Your task to perform on an android device: turn on data saver in the chrome app Image 0: 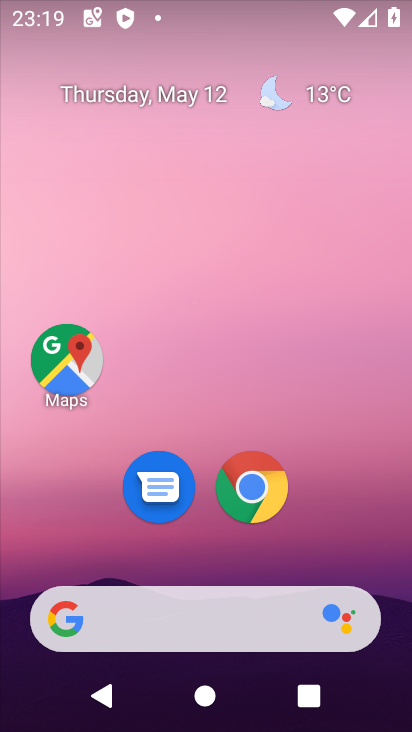
Step 0: click (243, 490)
Your task to perform on an android device: turn on data saver in the chrome app Image 1: 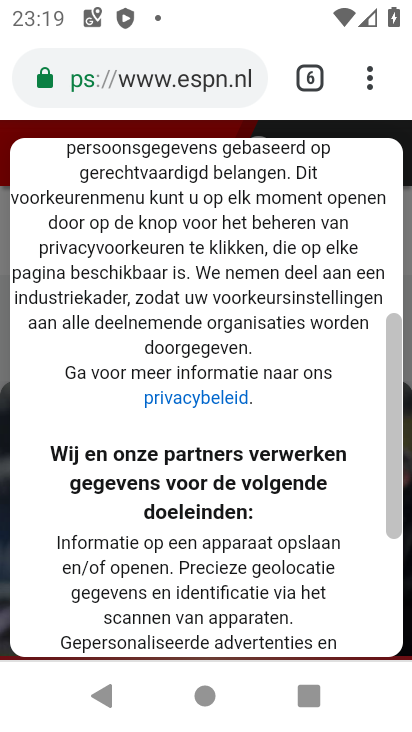
Step 1: click (376, 78)
Your task to perform on an android device: turn on data saver in the chrome app Image 2: 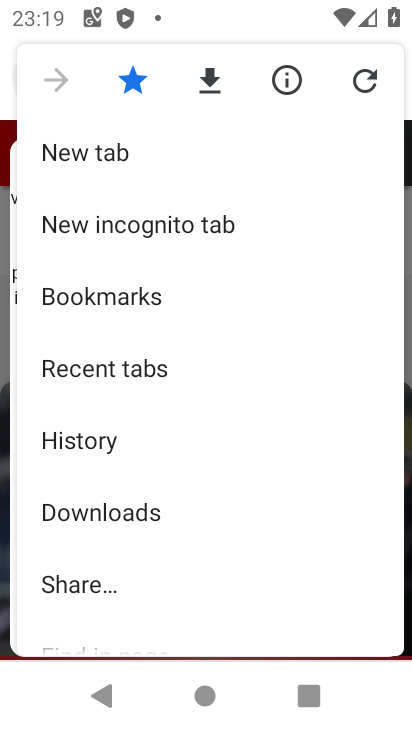
Step 2: drag from (134, 584) to (156, 138)
Your task to perform on an android device: turn on data saver in the chrome app Image 3: 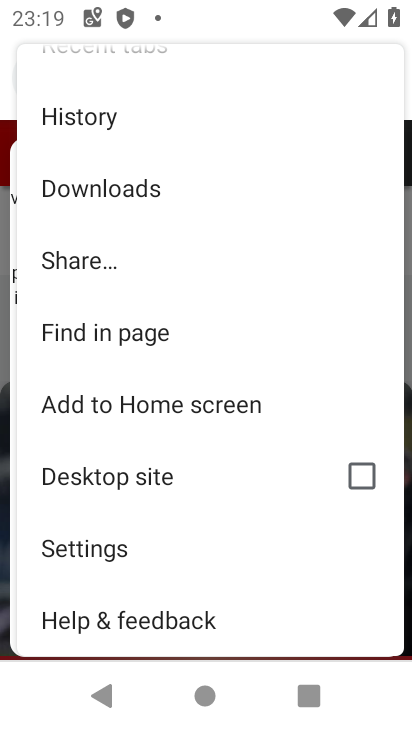
Step 3: click (136, 559)
Your task to perform on an android device: turn on data saver in the chrome app Image 4: 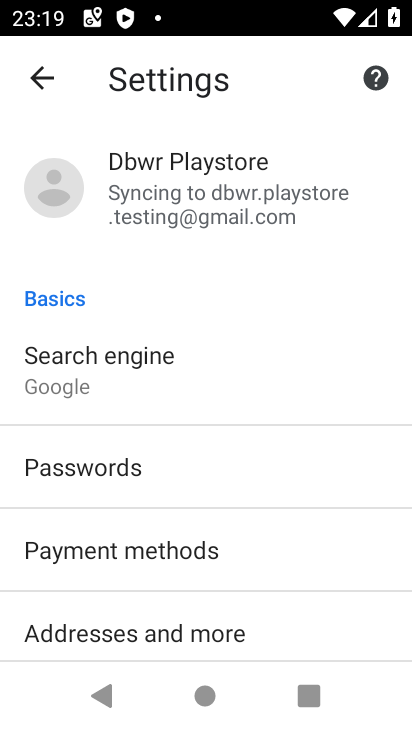
Step 4: drag from (136, 559) to (178, 199)
Your task to perform on an android device: turn on data saver in the chrome app Image 5: 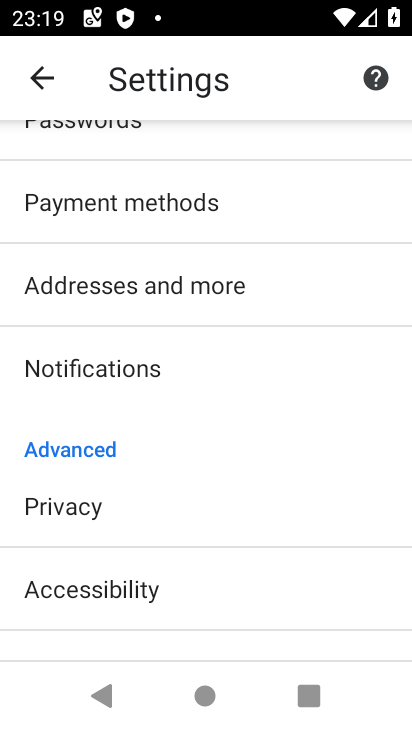
Step 5: drag from (114, 569) to (187, 235)
Your task to perform on an android device: turn on data saver in the chrome app Image 6: 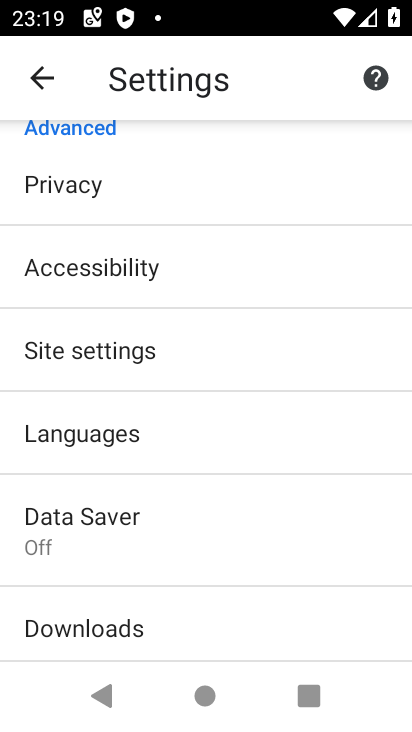
Step 6: click (97, 504)
Your task to perform on an android device: turn on data saver in the chrome app Image 7: 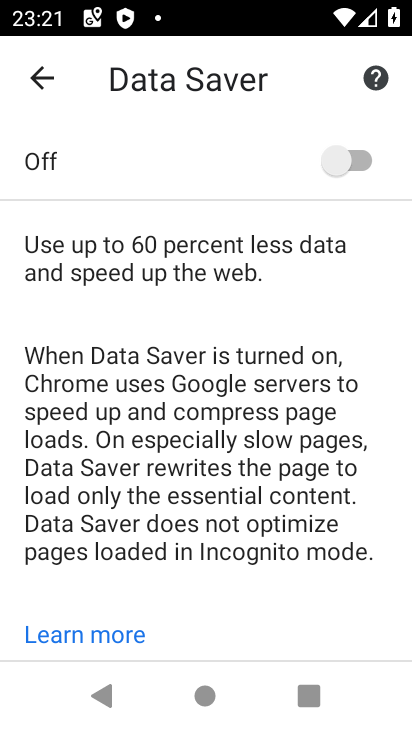
Step 7: click (368, 158)
Your task to perform on an android device: turn on data saver in the chrome app Image 8: 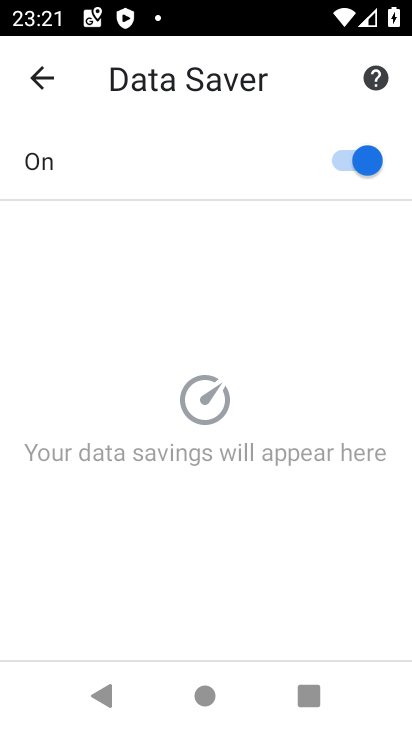
Step 8: task complete